Your task to perform on an android device: When is my next meeting? Image 0: 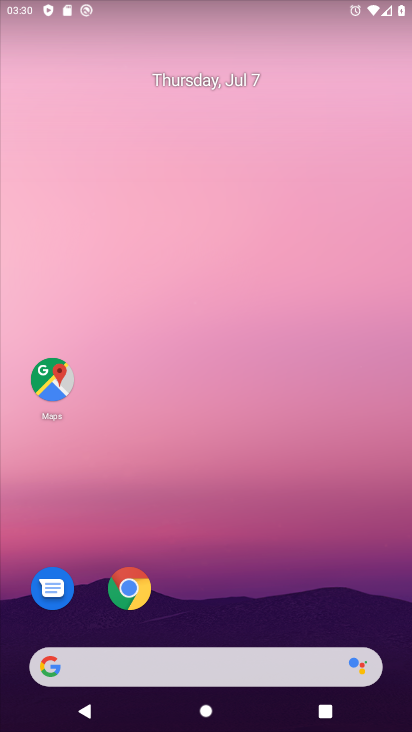
Step 0: drag from (170, 601) to (233, 121)
Your task to perform on an android device: When is my next meeting? Image 1: 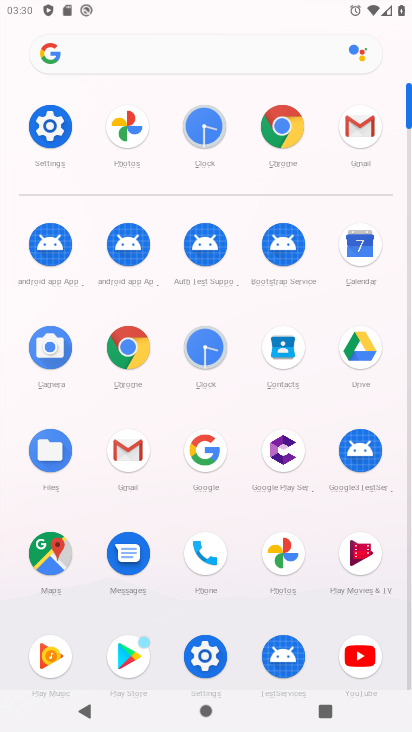
Step 1: click (354, 252)
Your task to perform on an android device: When is my next meeting? Image 2: 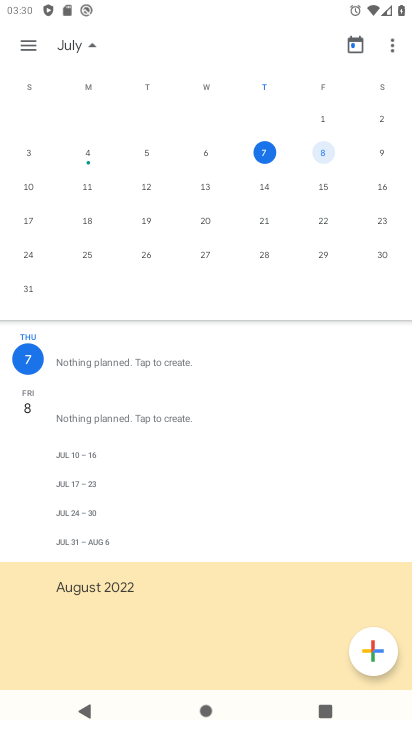
Step 2: task complete